Your task to perform on an android device: Open display settings Image 0: 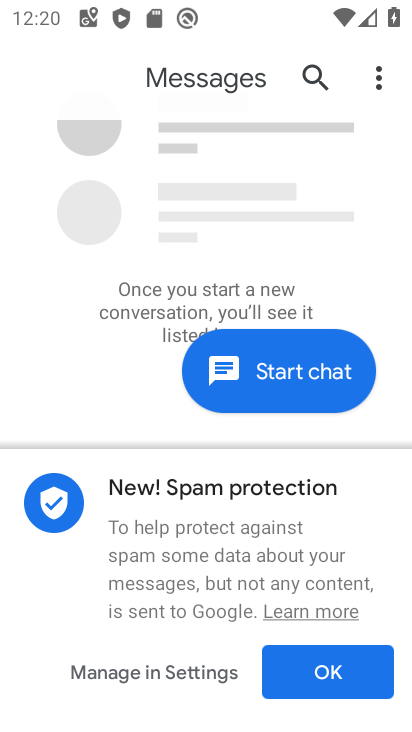
Step 0: press home button
Your task to perform on an android device: Open display settings Image 1: 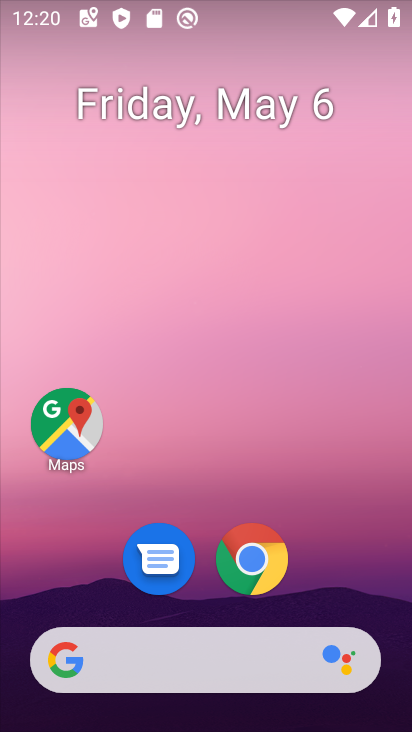
Step 1: drag from (324, 599) to (387, 132)
Your task to perform on an android device: Open display settings Image 2: 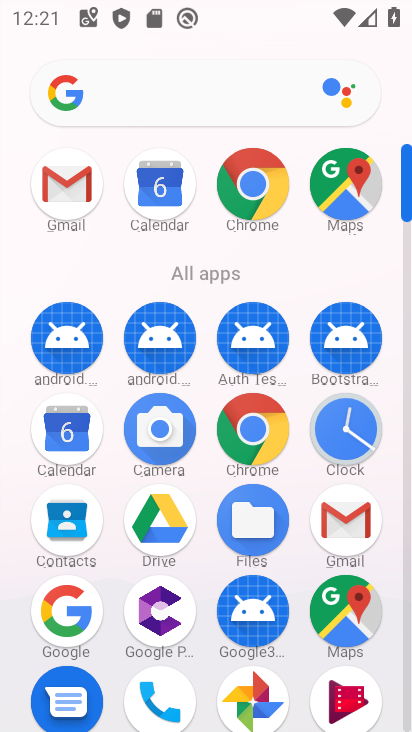
Step 2: drag from (221, 629) to (238, 409)
Your task to perform on an android device: Open display settings Image 3: 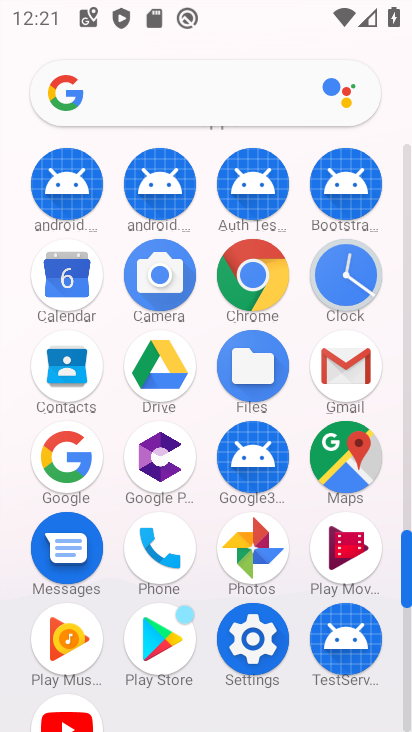
Step 3: click (255, 654)
Your task to perform on an android device: Open display settings Image 4: 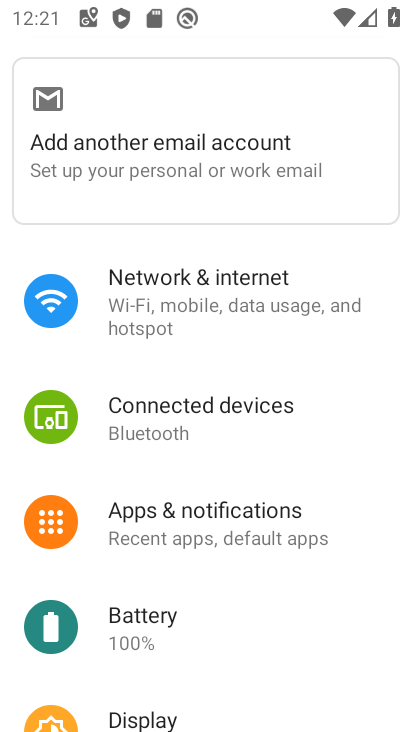
Step 4: drag from (179, 657) to (175, 475)
Your task to perform on an android device: Open display settings Image 5: 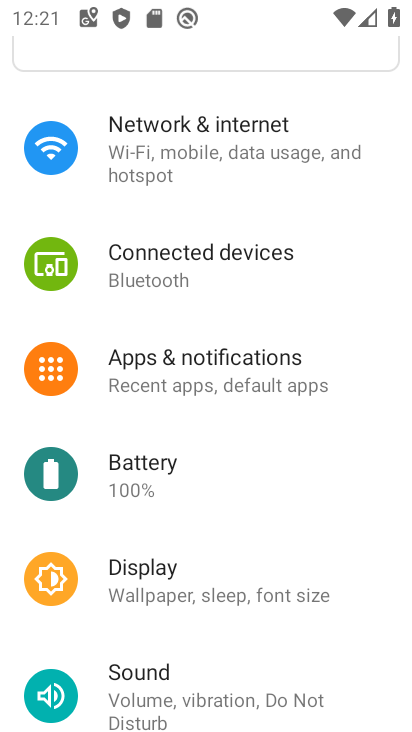
Step 5: click (203, 573)
Your task to perform on an android device: Open display settings Image 6: 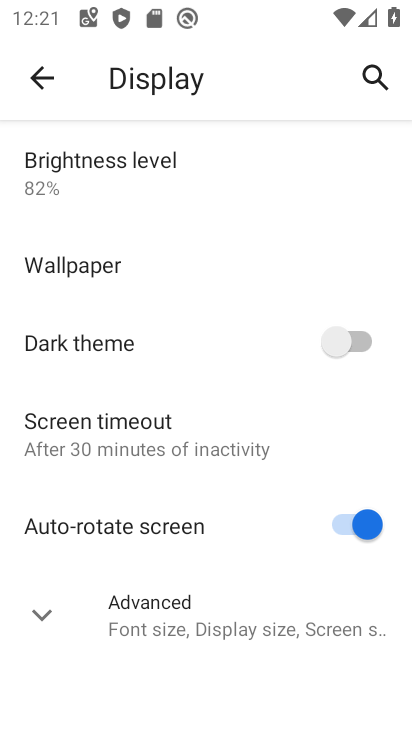
Step 6: task complete